Your task to perform on an android device: toggle priority inbox in the gmail app Image 0: 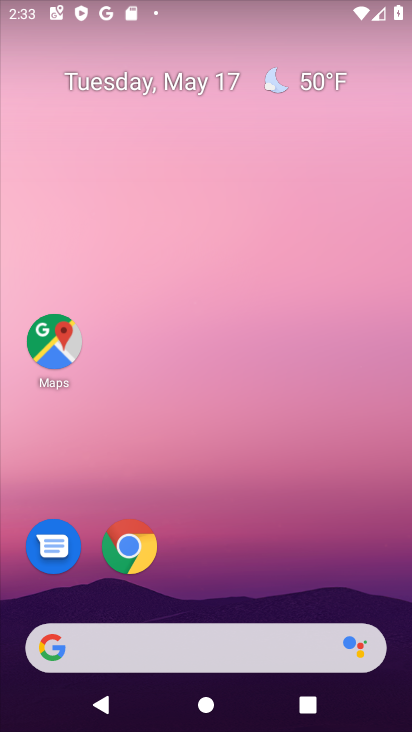
Step 0: drag from (237, 592) to (269, 52)
Your task to perform on an android device: toggle priority inbox in the gmail app Image 1: 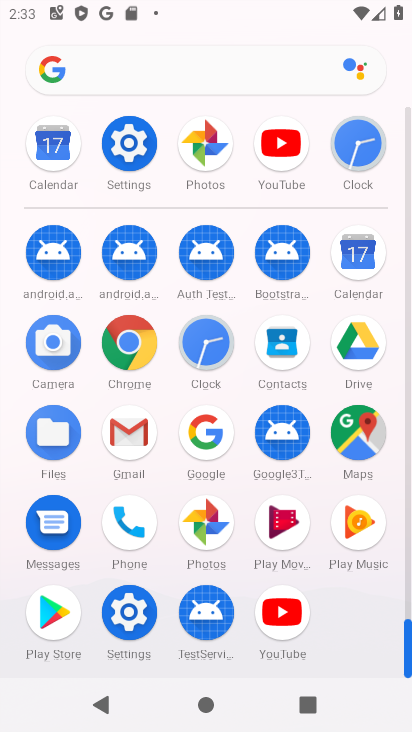
Step 1: click (130, 441)
Your task to perform on an android device: toggle priority inbox in the gmail app Image 2: 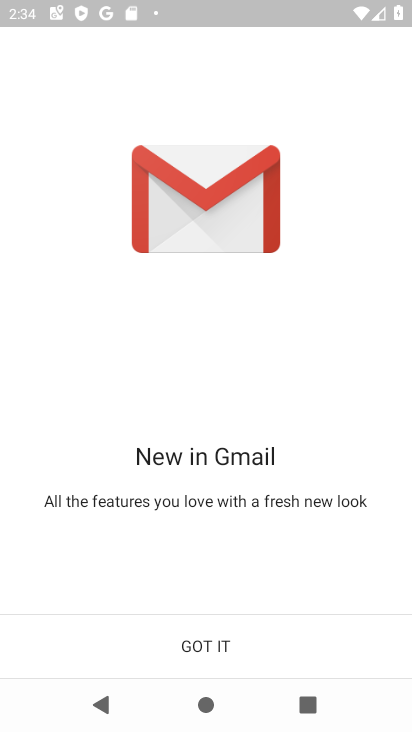
Step 2: click (238, 653)
Your task to perform on an android device: toggle priority inbox in the gmail app Image 3: 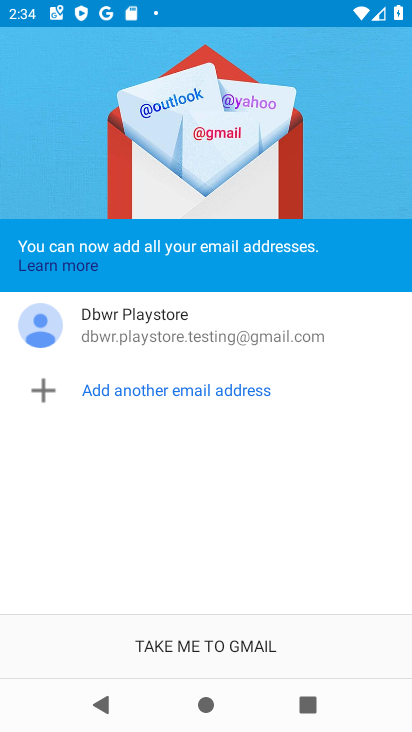
Step 3: click (238, 649)
Your task to perform on an android device: toggle priority inbox in the gmail app Image 4: 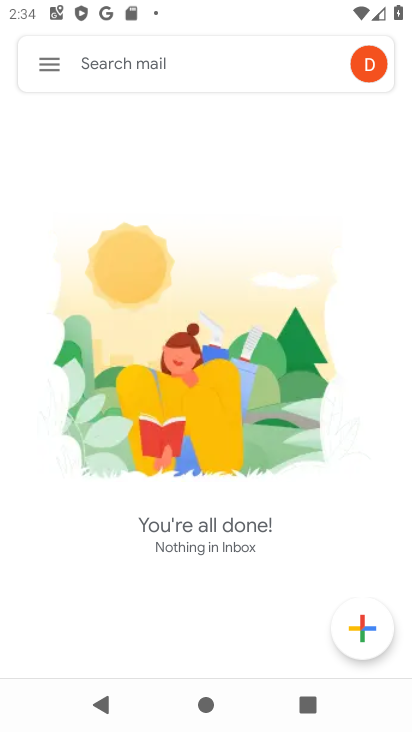
Step 4: click (40, 63)
Your task to perform on an android device: toggle priority inbox in the gmail app Image 5: 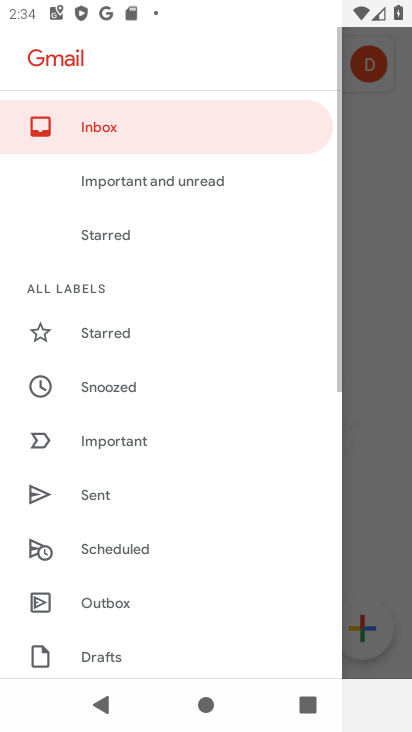
Step 5: drag from (106, 619) to (186, 338)
Your task to perform on an android device: toggle priority inbox in the gmail app Image 6: 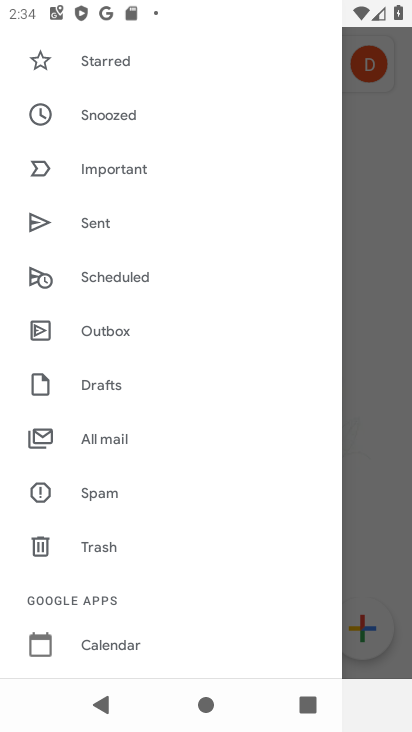
Step 6: drag from (160, 564) to (218, 171)
Your task to perform on an android device: toggle priority inbox in the gmail app Image 7: 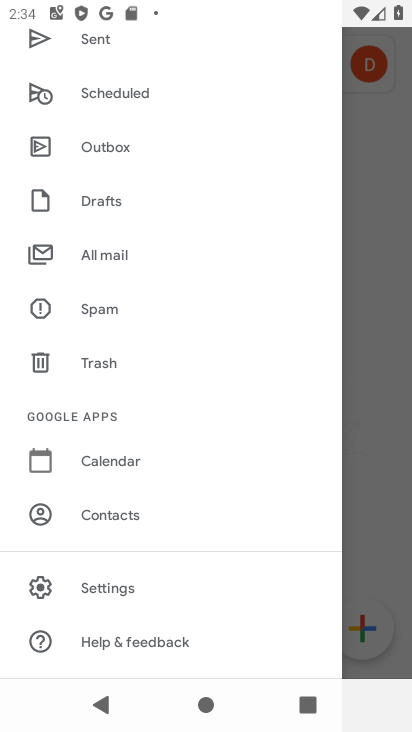
Step 7: click (141, 582)
Your task to perform on an android device: toggle priority inbox in the gmail app Image 8: 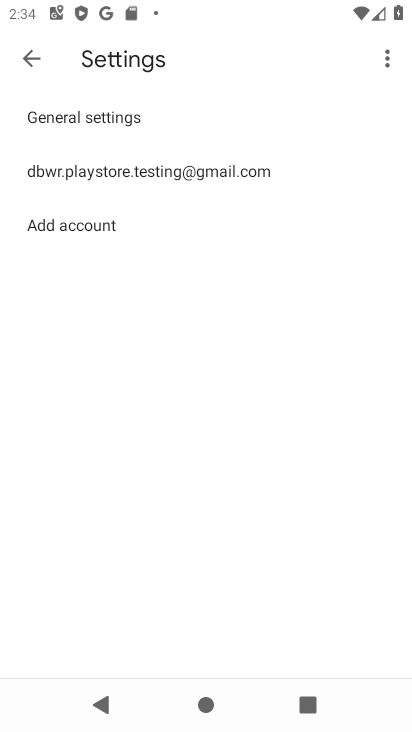
Step 8: click (117, 168)
Your task to perform on an android device: toggle priority inbox in the gmail app Image 9: 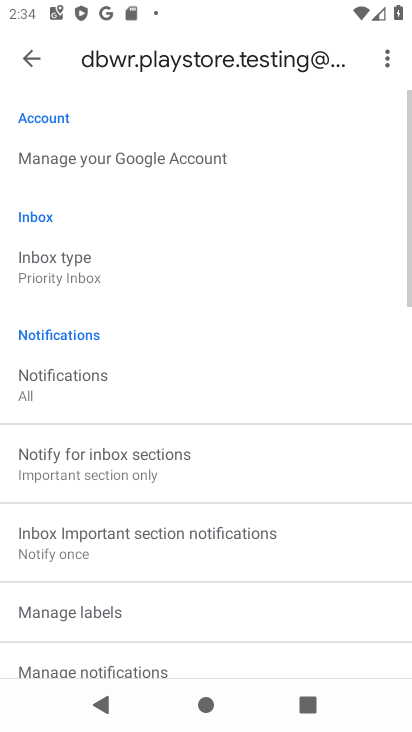
Step 9: click (115, 268)
Your task to perform on an android device: toggle priority inbox in the gmail app Image 10: 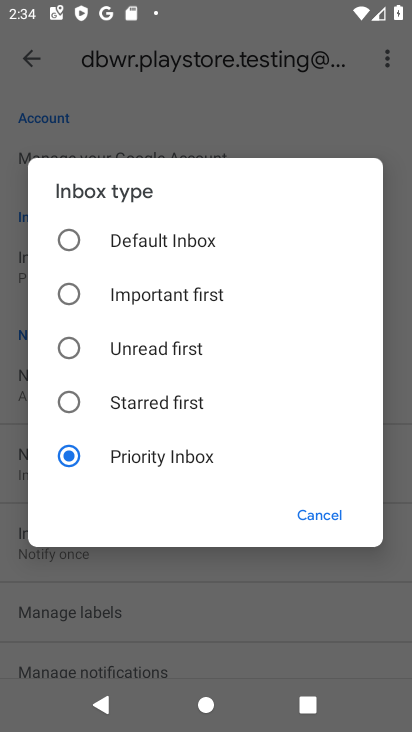
Step 10: click (121, 255)
Your task to perform on an android device: toggle priority inbox in the gmail app Image 11: 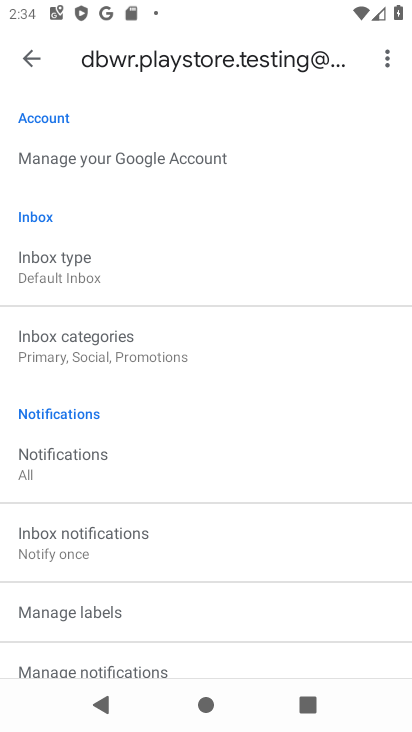
Step 11: task complete